Your task to perform on an android device: Search for Italian restaurants on Maps Image 0: 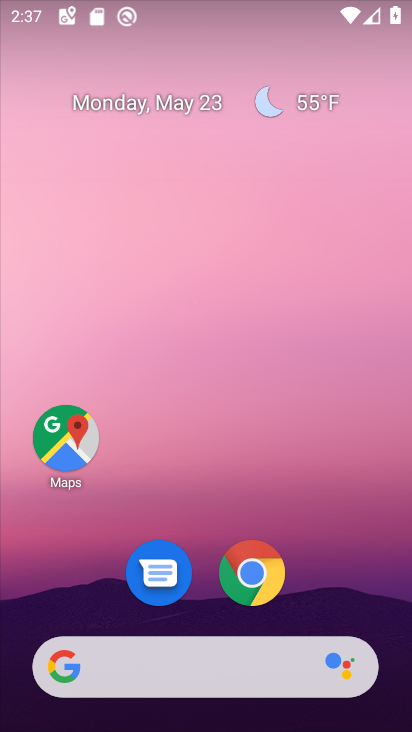
Step 0: click (69, 434)
Your task to perform on an android device: Search for Italian restaurants on Maps Image 1: 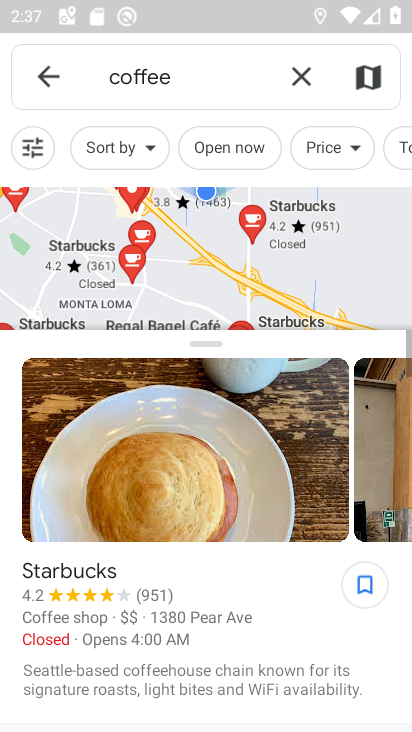
Step 1: click (294, 80)
Your task to perform on an android device: Search for Italian restaurants on Maps Image 2: 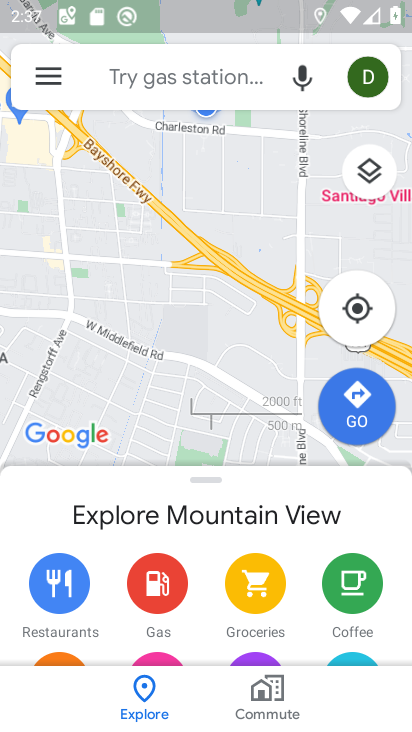
Step 2: click (142, 86)
Your task to perform on an android device: Search for Italian restaurants on Maps Image 3: 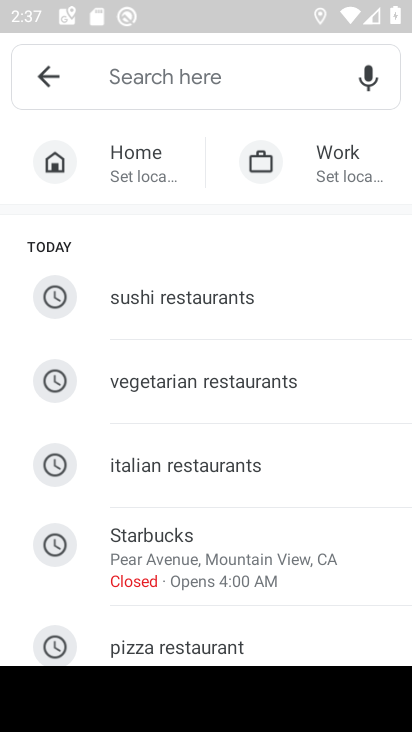
Step 3: click (262, 467)
Your task to perform on an android device: Search for Italian restaurants on Maps Image 4: 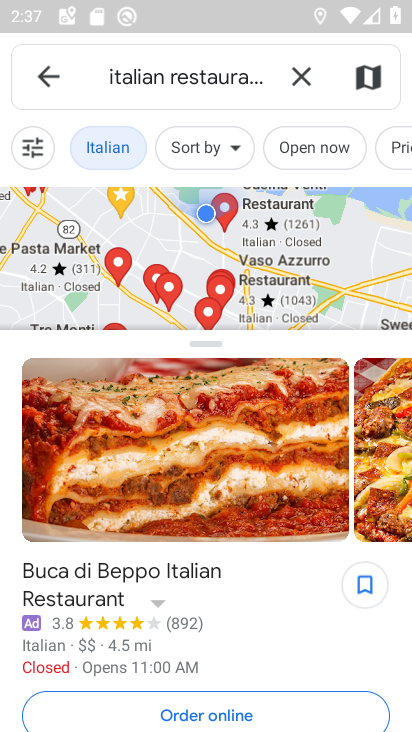
Step 4: task complete